Your task to perform on an android device: turn vacation reply on in the gmail app Image 0: 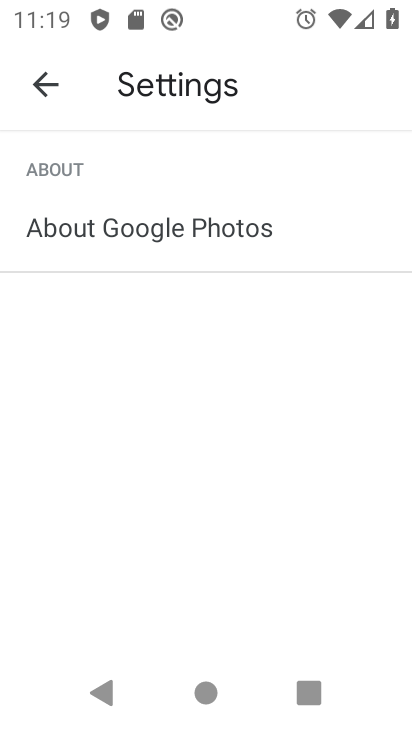
Step 0: press home button
Your task to perform on an android device: turn vacation reply on in the gmail app Image 1: 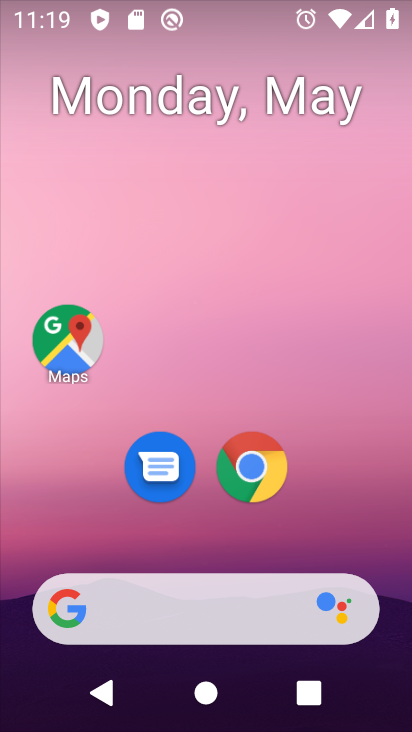
Step 1: drag from (342, 506) to (290, 168)
Your task to perform on an android device: turn vacation reply on in the gmail app Image 2: 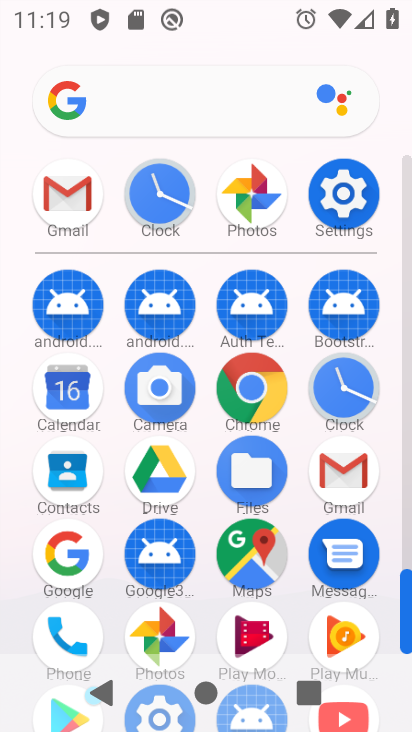
Step 2: click (45, 206)
Your task to perform on an android device: turn vacation reply on in the gmail app Image 3: 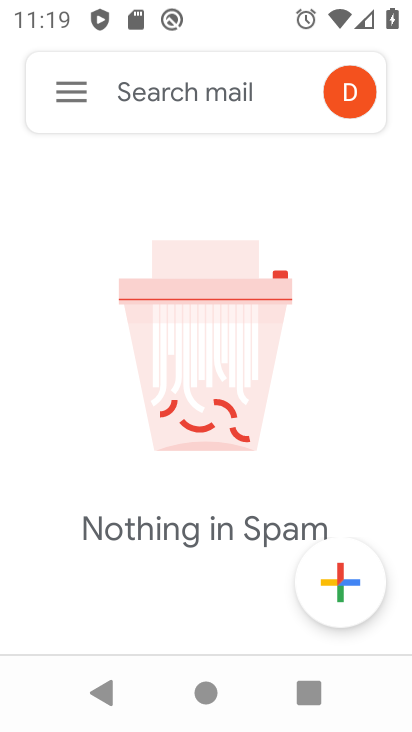
Step 3: click (77, 116)
Your task to perform on an android device: turn vacation reply on in the gmail app Image 4: 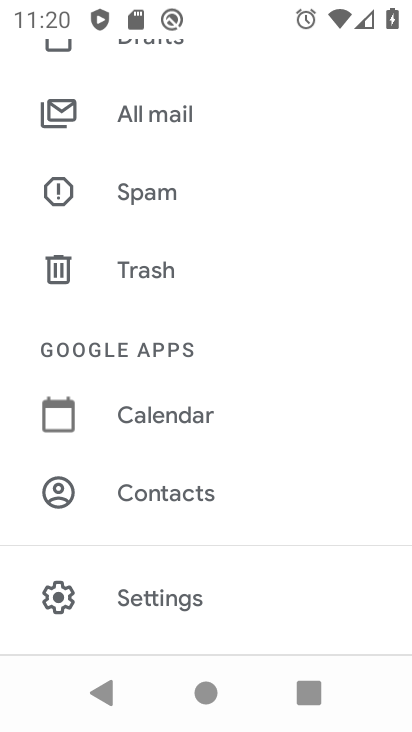
Step 4: click (149, 602)
Your task to perform on an android device: turn vacation reply on in the gmail app Image 5: 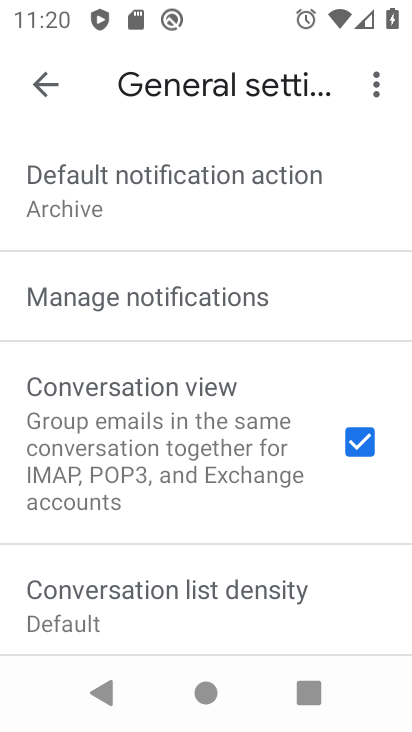
Step 5: drag from (204, 506) to (190, 205)
Your task to perform on an android device: turn vacation reply on in the gmail app Image 6: 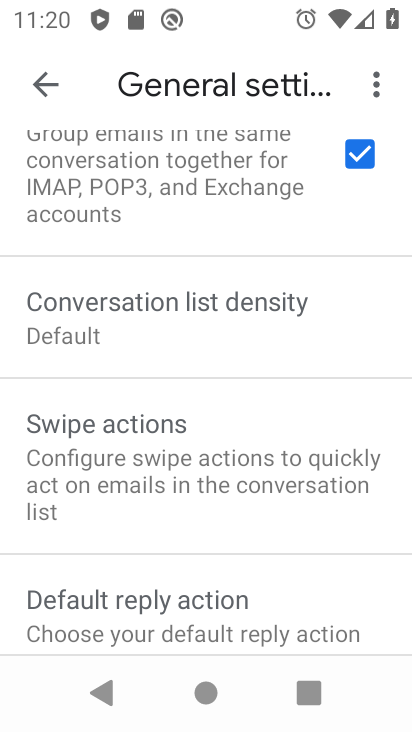
Step 6: click (34, 92)
Your task to perform on an android device: turn vacation reply on in the gmail app Image 7: 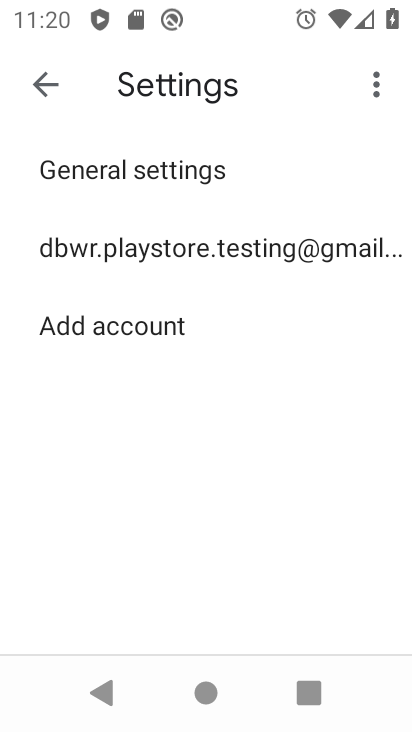
Step 7: click (137, 261)
Your task to perform on an android device: turn vacation reply on in the gmail app Image 8: 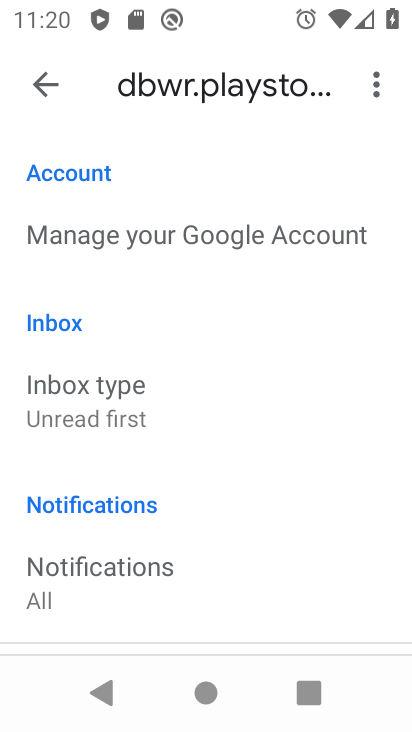
Step 8: drag from (177, 514) to (136, 215)
Your task to perform on an android device: turn vacation reply on in the gmail app Image 9: 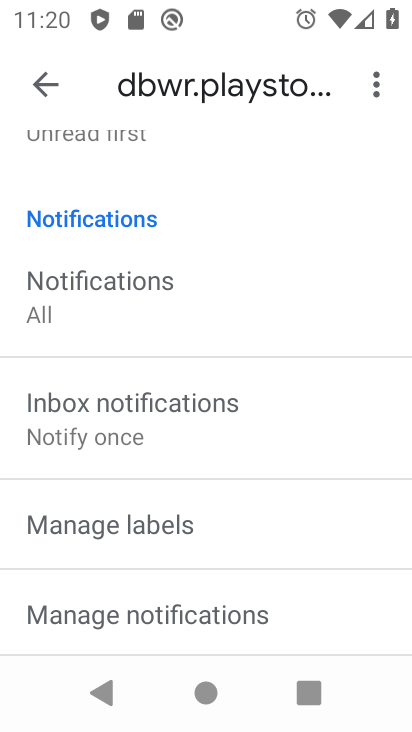
Step 9: drag from (184, 496) to (137, 309)
Your task to perform on an android device: turn vacation reply on in the gmail app Image 10: 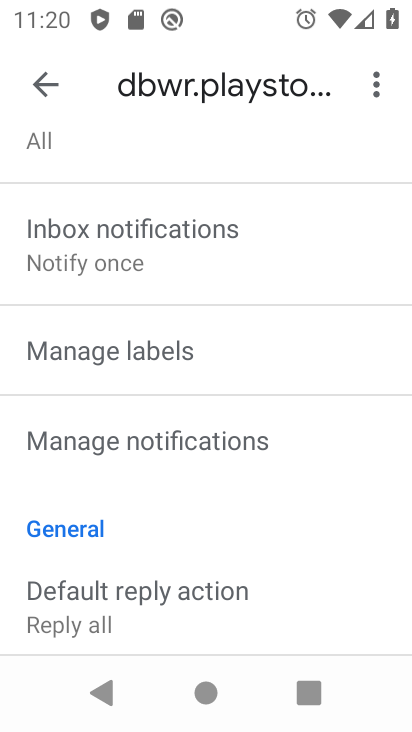
Step 10: drag from (180, 557) to (130, 272)
Your task to perform on an android device: turn vacation reply on in the gmail app Image 11: 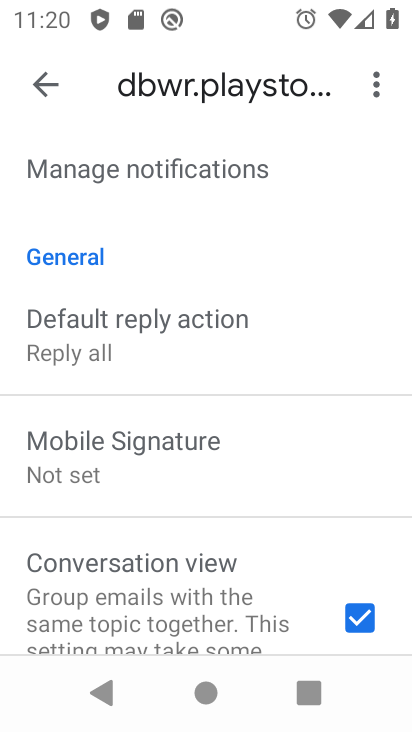
Step 11: drag from (166, 535) to (155, 316)
Your task to perform on an android device: turn vacation reply on in the gmail app Image 12: 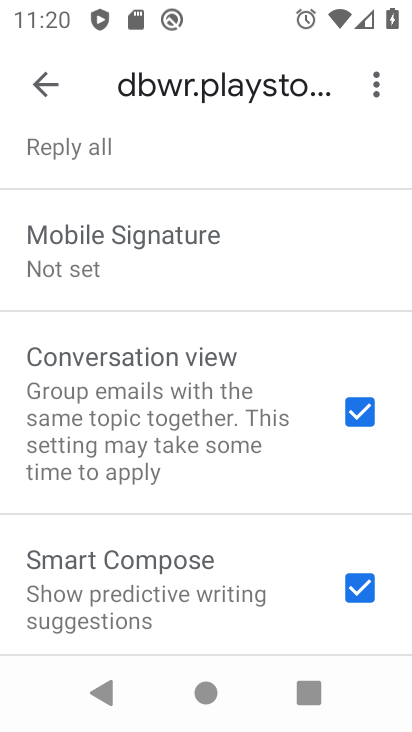
Step 12: drag from (154, 470) to (147, 293)
Your task to perform on an android device: turn vacation reply on in the gmail app Image 13: 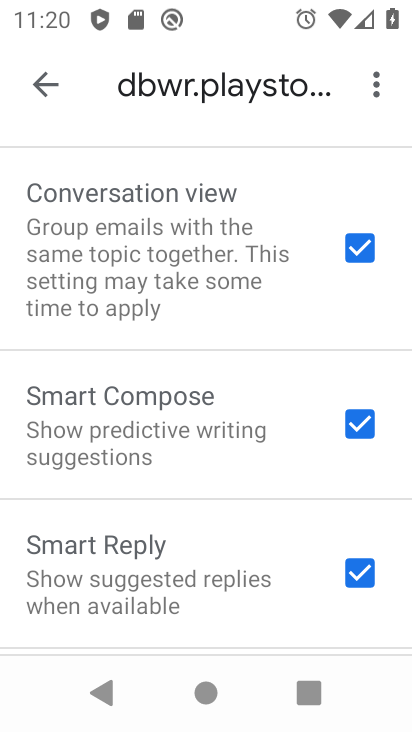
Step 13: drag from (147, 483) to (136, 373)
Your task to perform on an android device: turn vacation reply on in the gmail app Image 14: 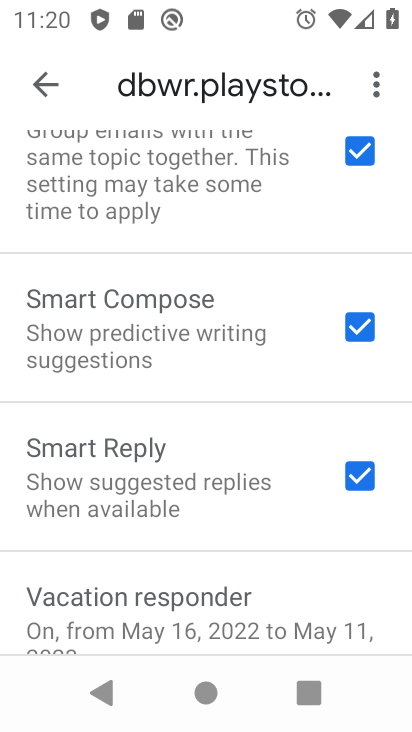
Step 14: click (111, 614)
Your task to perform on an android device: turn vacation reply on in the gmail app Image 15: 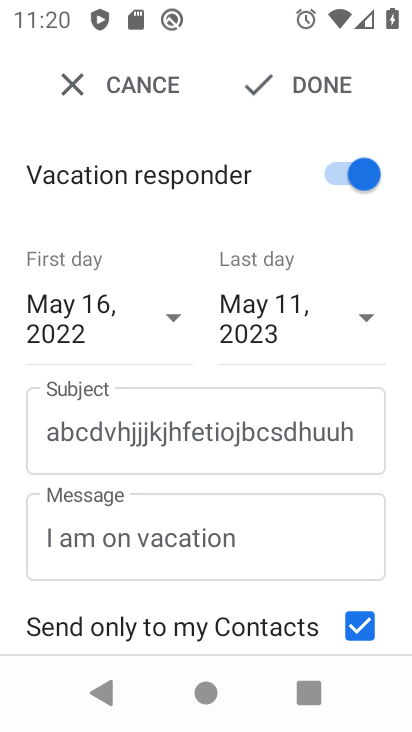
Step 15: click (316, 86)
Your task to perform on an android device: turn vacation reply on in the gmail app Image 16: 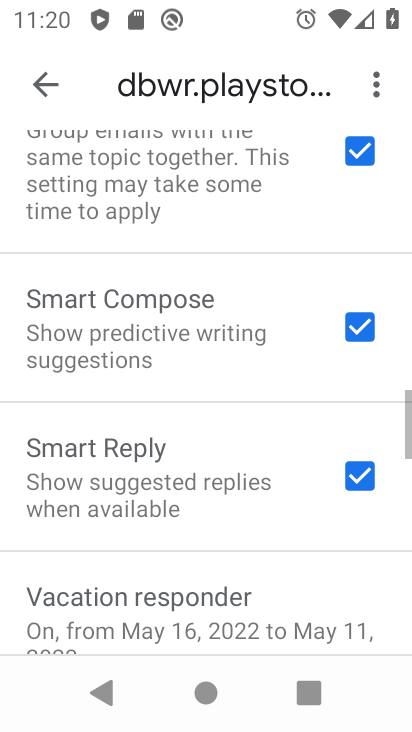
Step 16: task complete